Your task to perform on an android device: turn on translation in the chrome app Image 0: 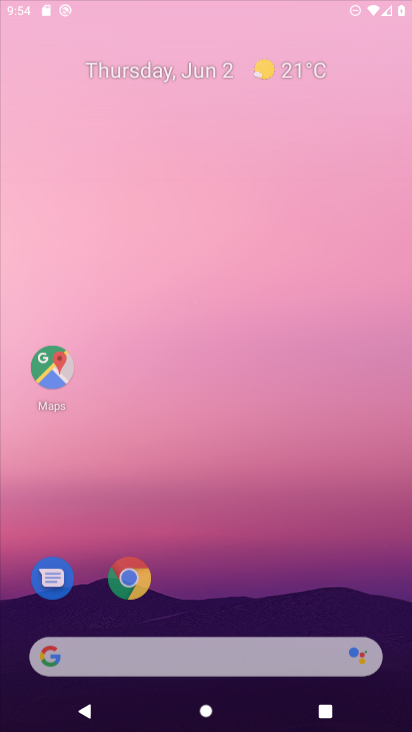
Step 0: press home button
Your task to perform on an android device: turn on translation in the chrome app Image 1: 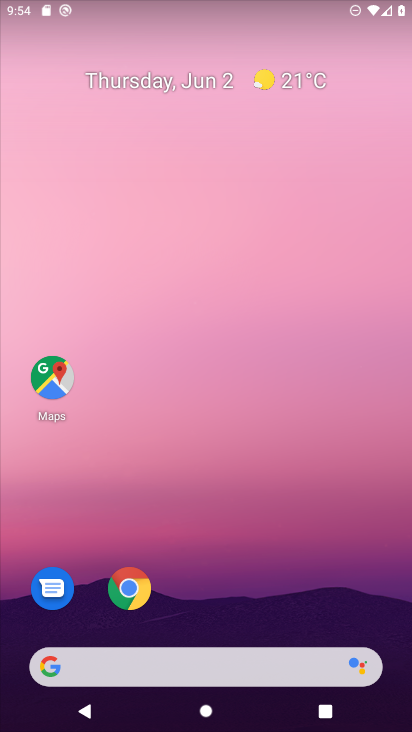
Step 1: drag from (226, 547) to (261, 65)
Your task to perform on an android device: turn on translation in the chrome app Image 2: 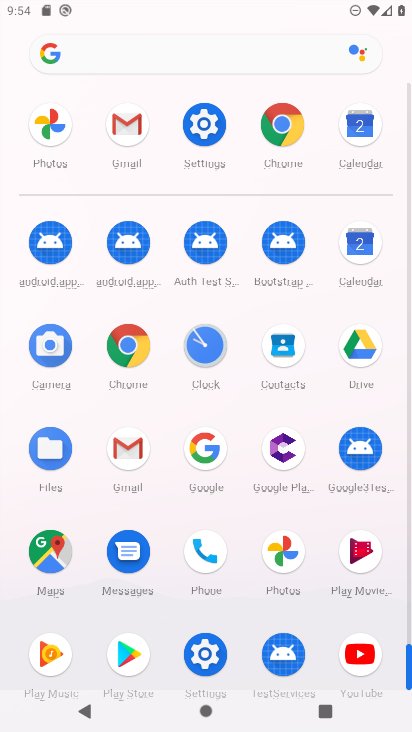
Step 2: click (282, 132)
Your task to perform on an android device: turn on translation in the chrome app Image 3: 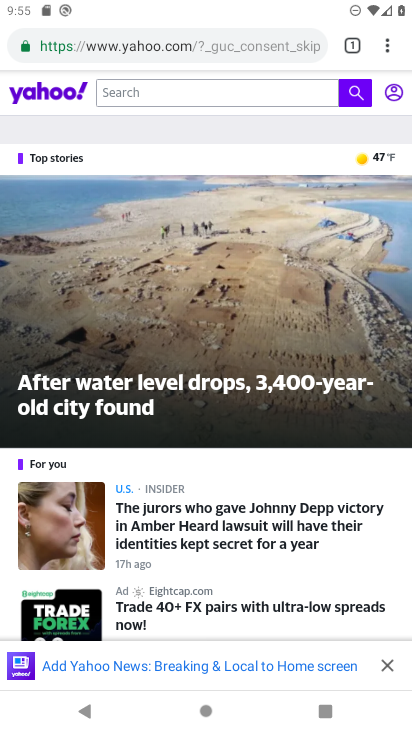
Step 3: click (393, 49)
Your task to perform on an android device: turn on translation in the chrome app Image 4: 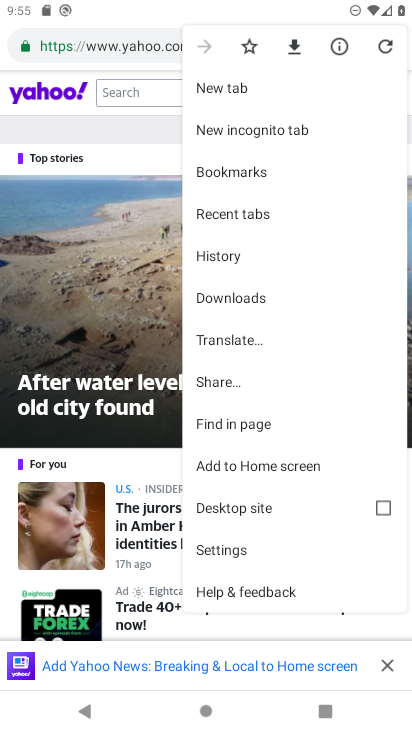
Step 4: click (288, 333)
Your task to perform on an android device: turn on translation in the chrome app Image 5: 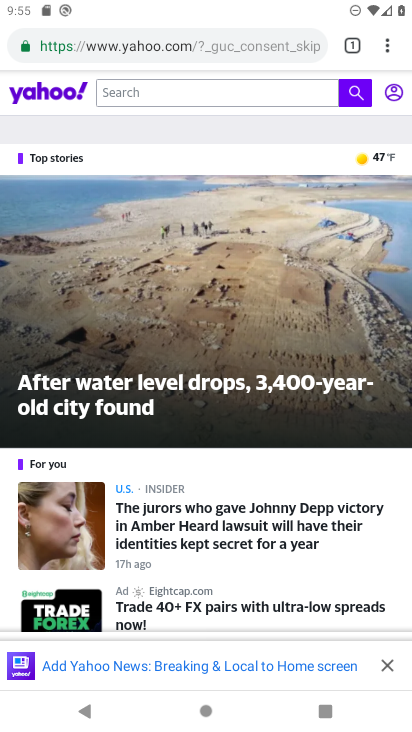
Step 5: click (389, 666)
Your task to perform on an android device: turn on translation in the chrome app Image 6: 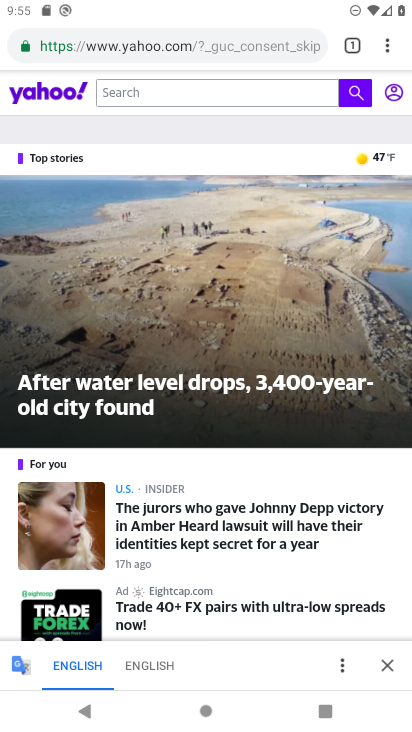
Step 6: click (340, 669)
Your task to perform on an android device: turn on translation in the chrome app Image 7: 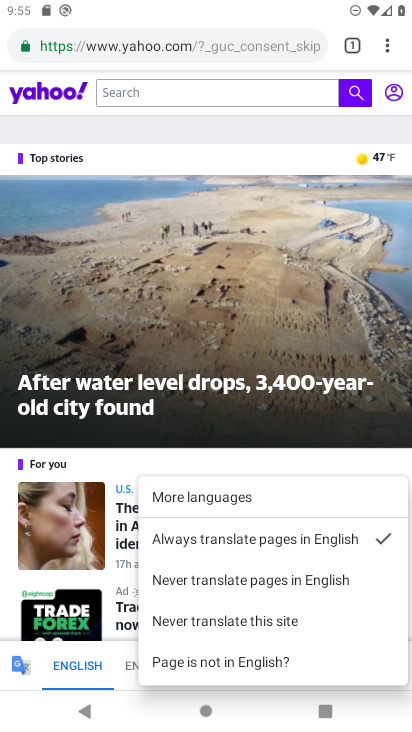
Step 7: task complete